Your task to perform on an android device: Open calendar and show me the fourth week of next month Image 0: 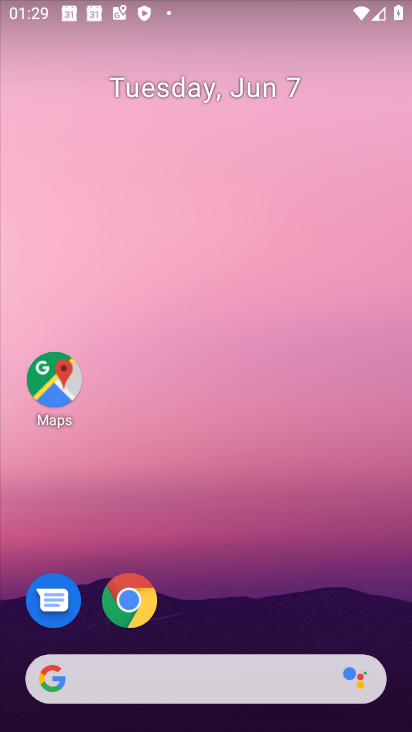
Step 0: drag from (257, 717) to (243, 78)
Your task to perform on an android device: Open calendar and show me the fourth week of next month Image 1: 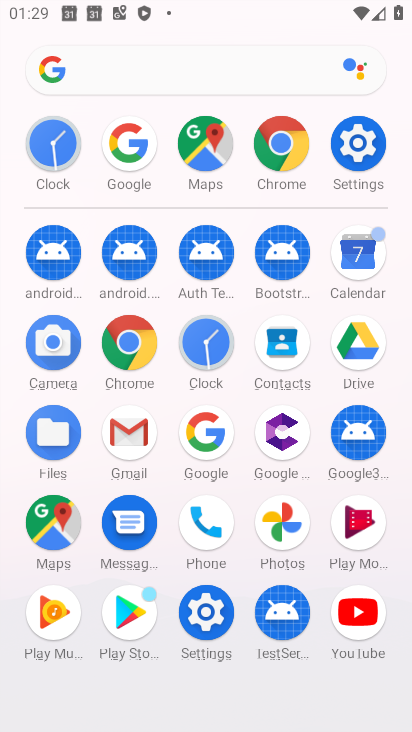
Step 1: click (356, 263)
Your task to perform on an android device: Open calendar and show me the fourth week of next month Image 2: 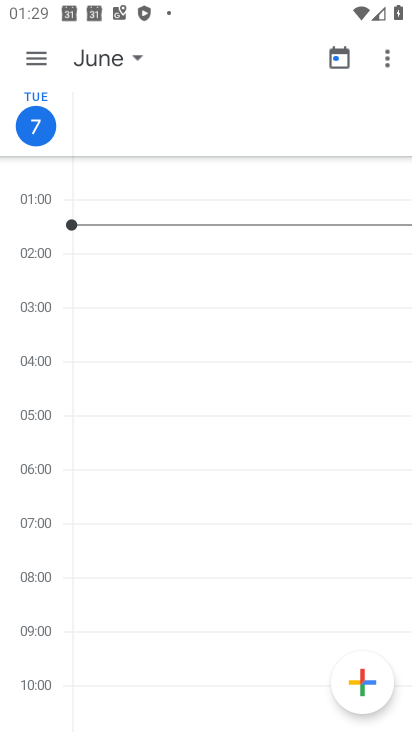
Step 2: click (124, 55)
Your task to perform on an android device: Open calendar and show me the fourth week of next month Image 3: 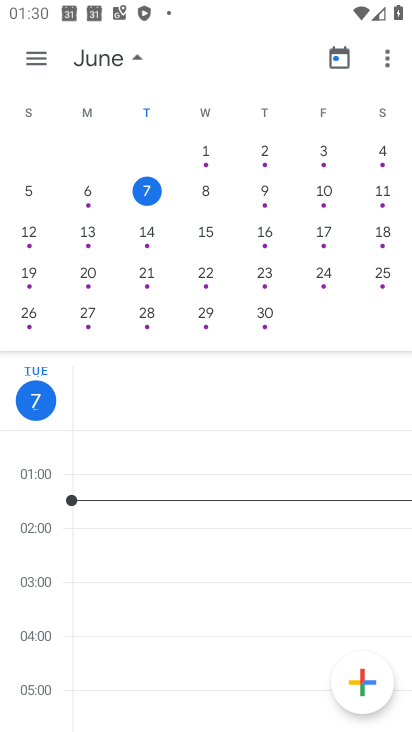
Step 3: drag from (324, 250) to (83, 248)
Your task to perform on an android device: Open calendar and show me the fourth week of next month Image 4: 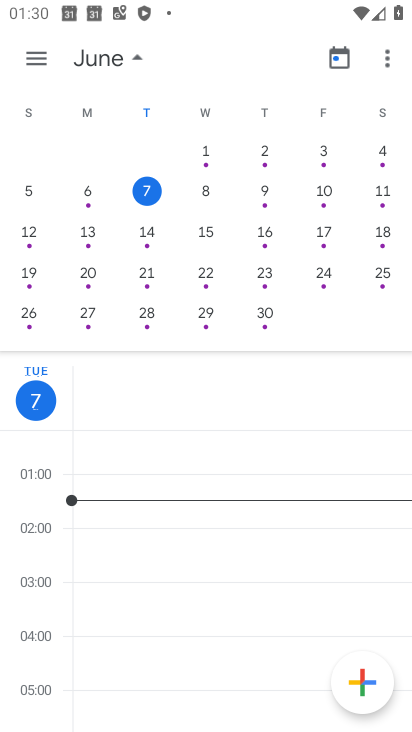
Step 4: drag from (381, 213) to (28, 218)
Your task to perform on an android device: Open calendar and show me the fourth week of next month Image 5: 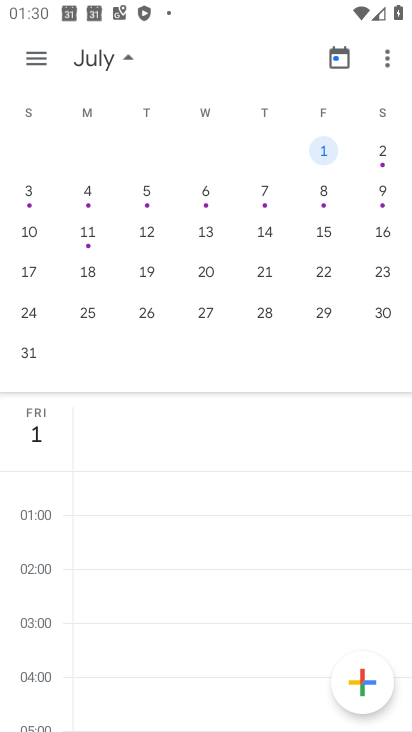
Step 5: click (88, 306)
Your task to perform on an android device: Open calendar and show me the fourth week of next month Image 6: 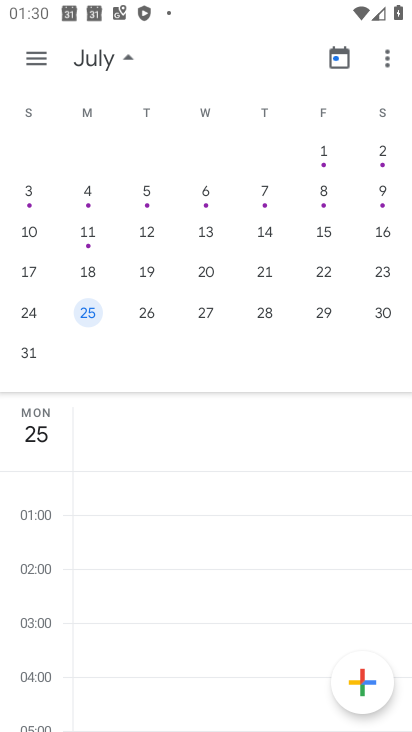
Step 6: click (29, 60)
Your task to perform on an android device: Open calendar and show me the fourth week of next month Image 7: 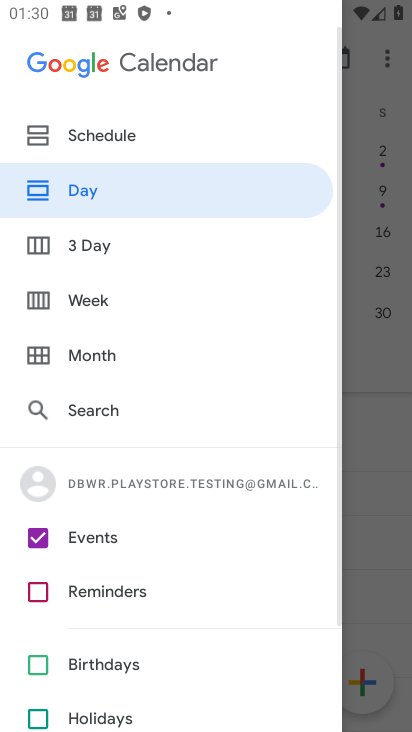
Step 7: click (85, 294)
Your task to perform on an android device: Open calendar and show me the fourth week of next month Image 8: 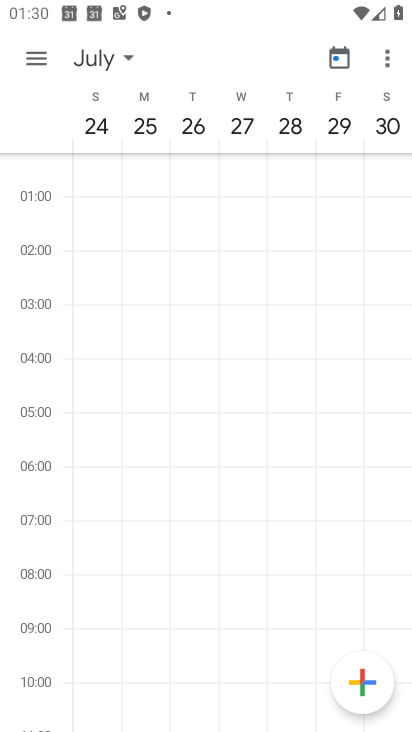
Step 8: task complete